Your task to perform on an android device: all mails in gmail Image 0: 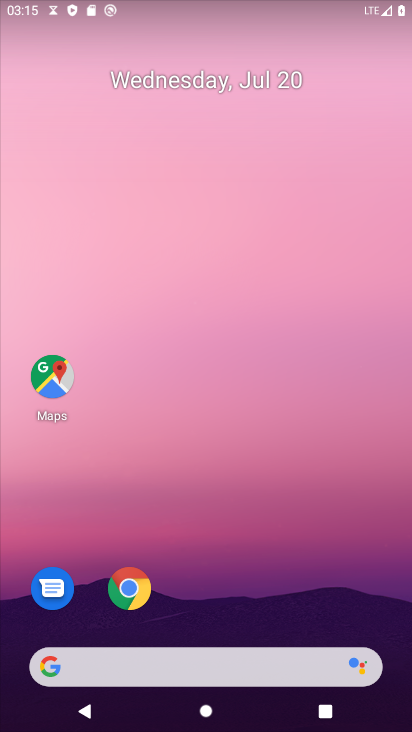
Step 0: drag from (169, 604) to (295, 82)
Your task to perform on an android device: all mails in gmail Image 1: 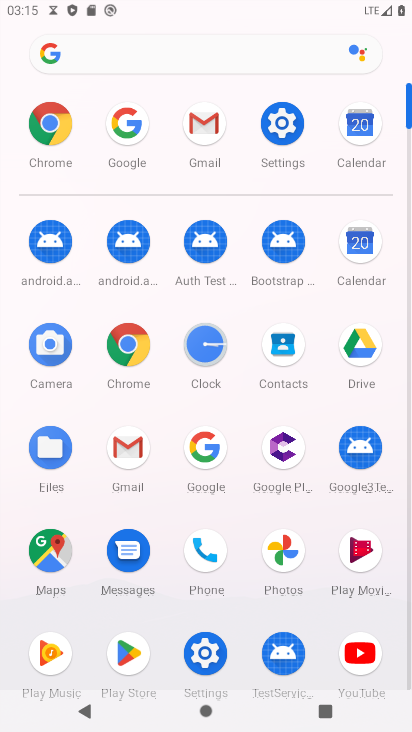
Step 1: click (128, 449)
Your task to perform on an android device: all mails in gmail Image 2: 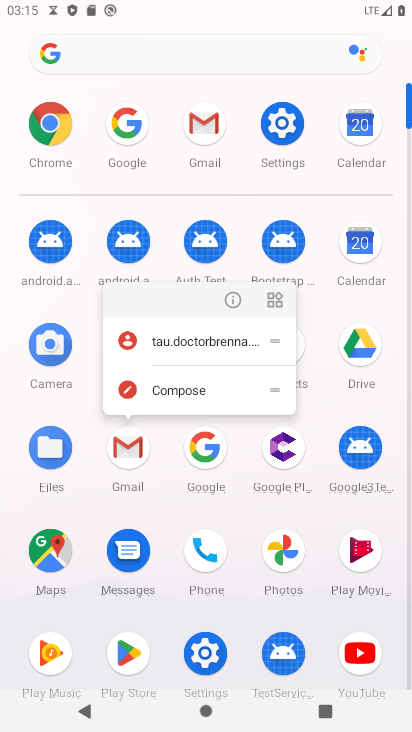
Step 2: click (226, 306)
Your task to perform on an android device: all mails in gmail Image 3: 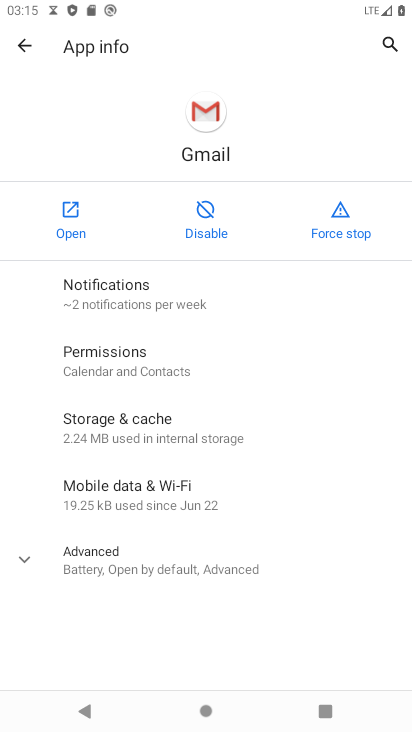
Step 3: click (67, 220)
Your task to perform on an android device: all mails in gmail Image 4: 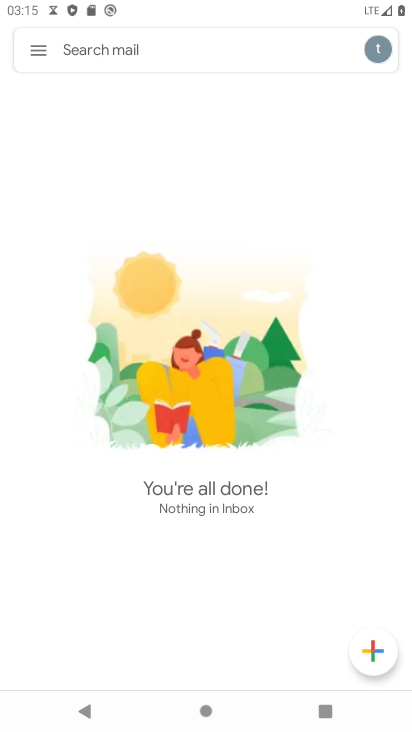
Step 4: drag from (146, 575) to (213, 308)
Your task to perform on an android device: all mails in gmail Image 5: 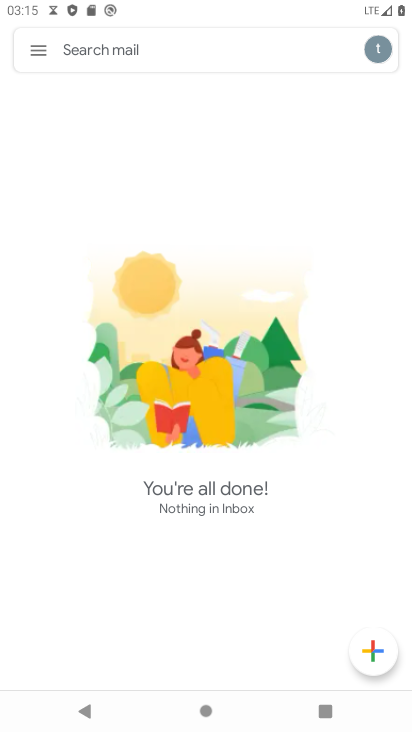
Step 5: click (35, 44)
Your task to perform on an android device: all mails in gmail Image 6: 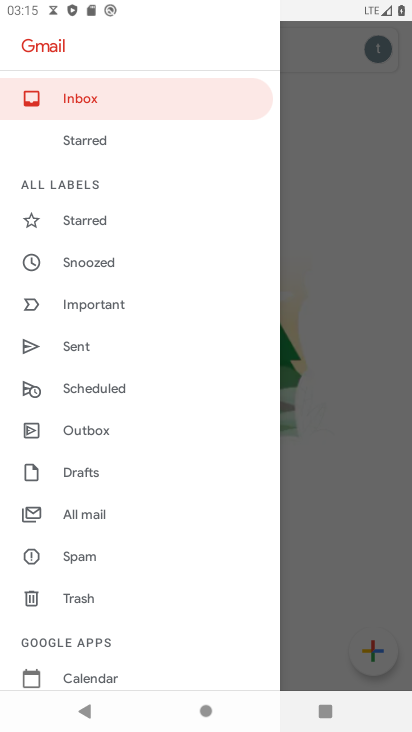
Step 6: click (95, 496)
Your task to perform on an android device: all mails in gmail Image 7: 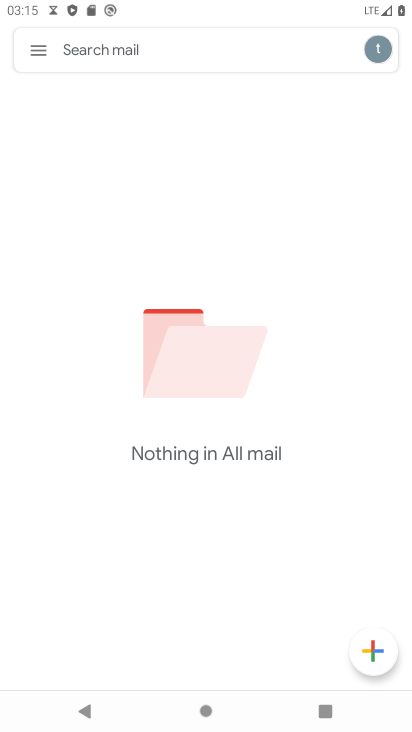
Step 7: task complete